Your task to perform on an android device: Play the last video I watched on Youtube Image 0: 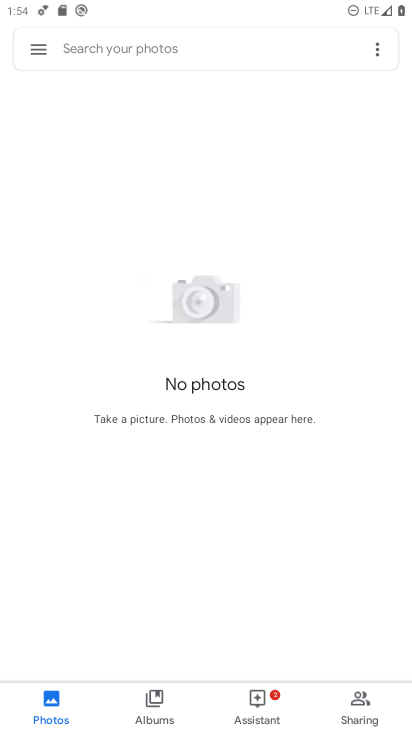
Step 0: press home button
Your task to perform on an android device: Play the last video I watched on Youtube Image 1: 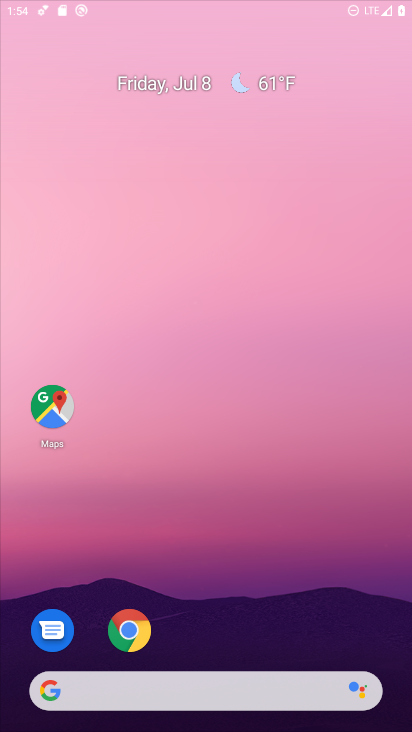
Step 1: drag from (384, 640) to (259, 14)
Your task to perform on an android device: Play the last video I watched on Youtube Image 2: 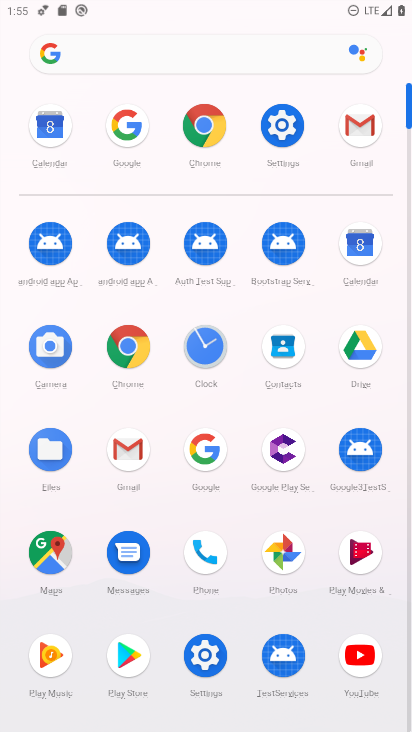
Step 2: click (352, 658)
Your task to perform on an android device: Play the last video I watched on Youtube Image 3: 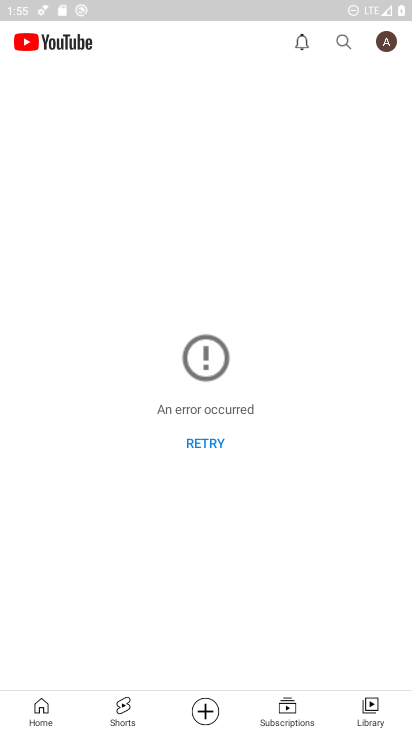
Step 3: task complete